Your task to perform on an android device: Set the phone to "Do not disturb". Image 0: 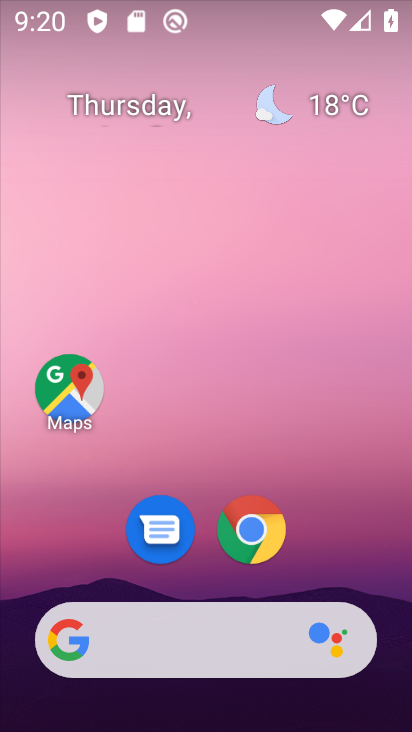
Step 0: drag from (379, 591) to (337, 98)
Your task to perform on an android device: Set the phone to "Do not disturb". Image 1: 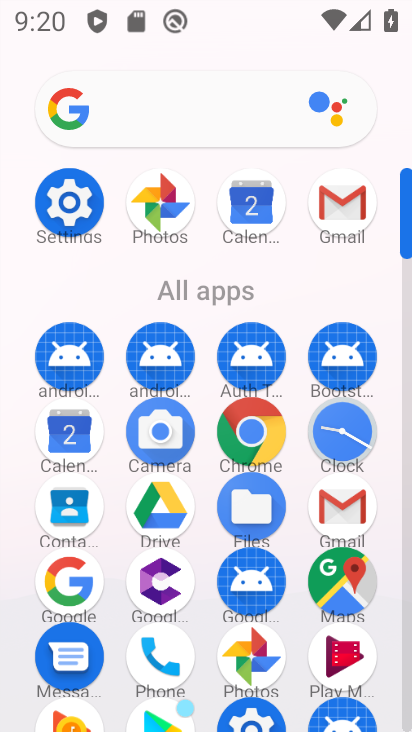
Step 1: click (61, 211)
Your task to perform on an android device: Set the phone to "Do not disturb". Image 2: 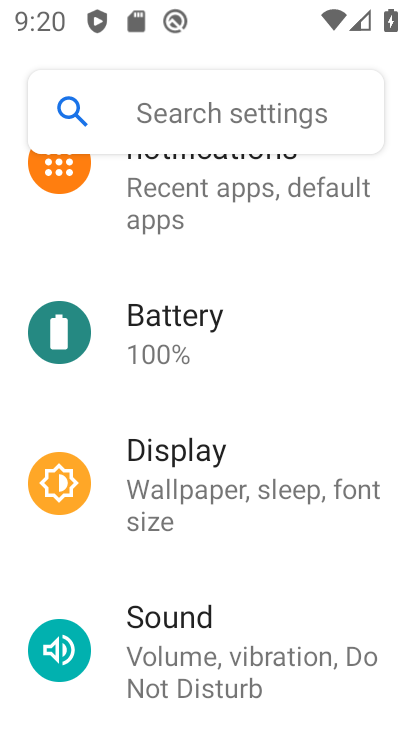
Step 2: click (177, 636)
Your task to perform on an android device: Set the phone to "Do not disturb". Image 3: 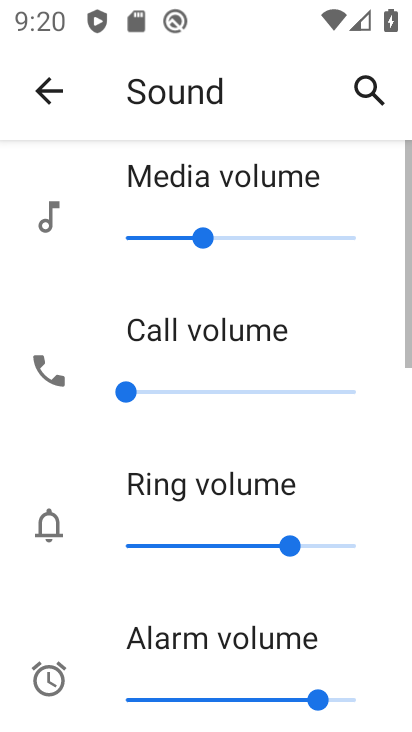
Step 3: drag from (216, 675) to (206, 204)
Your task to perform on an android device: Set the phone to "Do not disturb". Image 4: 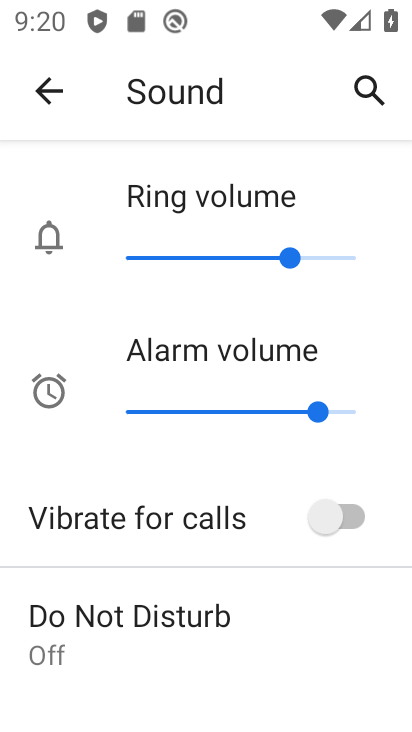
Step 4: click (80, 607)
Your task to perform on an android device: Set the phone to "Do not disturb". Image 5: 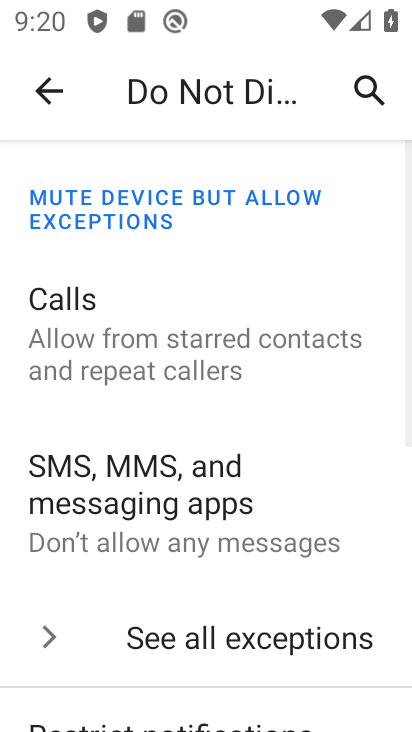
Step 5: drag from (258, 701) to (251, 160)
Your task to perform on an android device: Set the phone to "Do not disturb". Image 6: 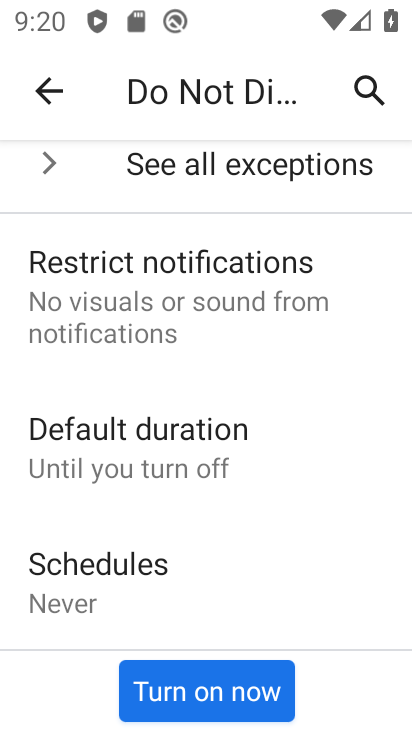
Step 6: click (197, 672)
Your task to perform on an android device: Set the phone to "Do not disturb". Image 7: 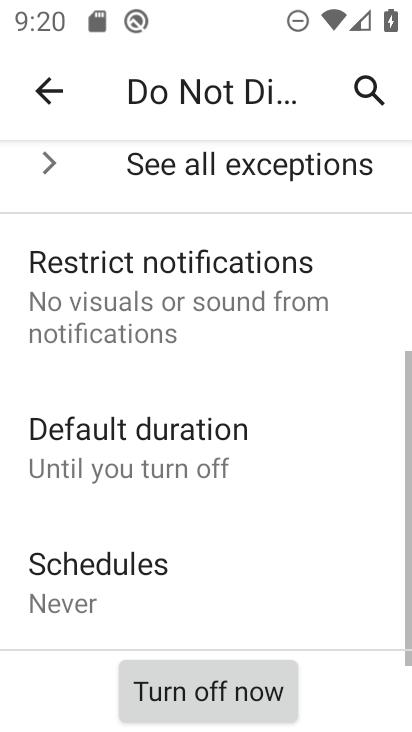
Step 7: task complete